Your task to perform on an android device: What's the weather going to be tomorrow? Image 0: 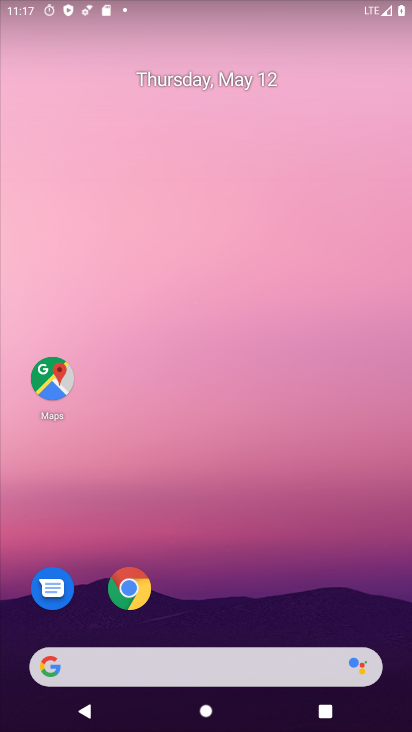
Step 0: click (140, 586)
Your task to perform on an android device: What's the weather going to be tomorrow? Image 1: 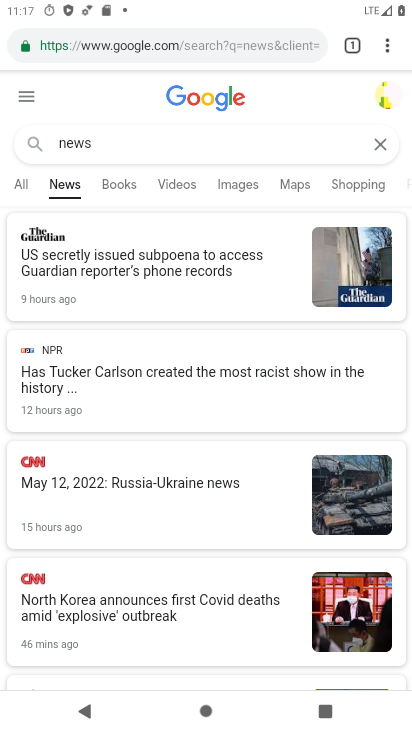
Step 1: click (144, 135)
Your task to perform on an android device: What's the weather going to be tomorrow? Image 2: 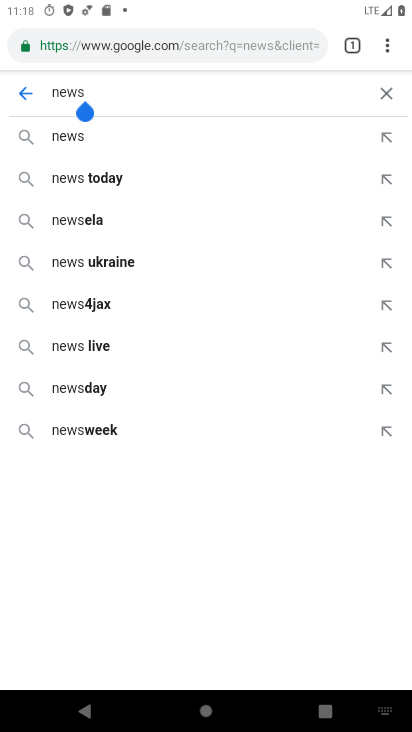
Step 2: click (385, 96)
Your task to perform on an android device: What's the weather going to be tomorrow? Image 3: 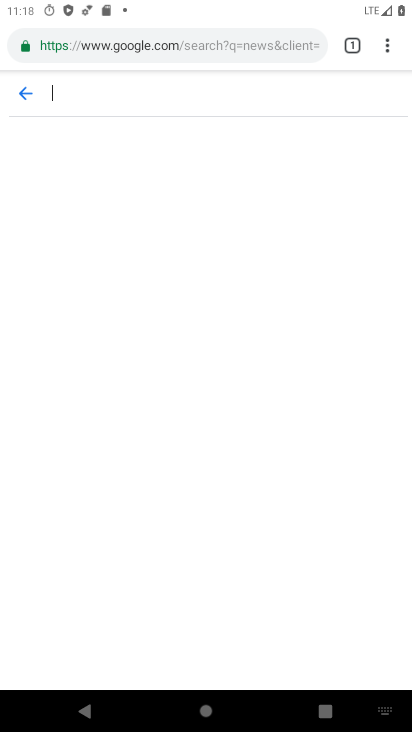
Step 3: type "weather"
Your task to perform on an android device: What's the weather going to be tomorrow? Image 4: 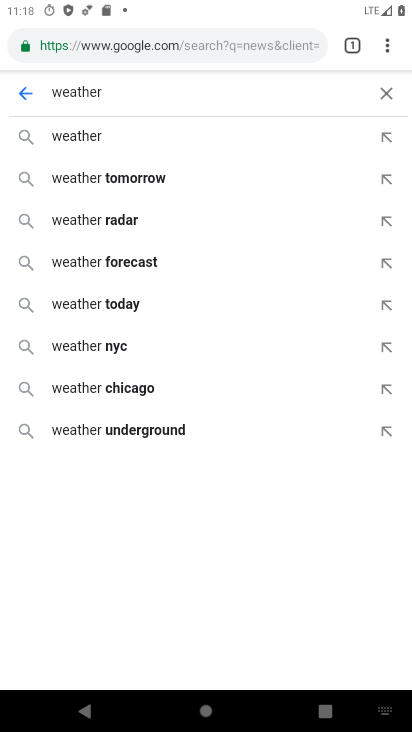
Step 4: click (87, 135)
Your task to perform on an android device: What's the weather going to be tomorrow? Image 5: 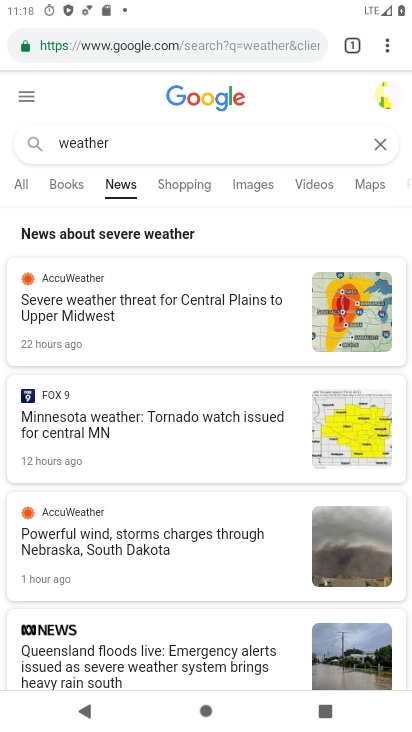
Step 5: click (25, 178)
Your task to perform on an android device: What's the weather going to be tomorrow? Image 6: 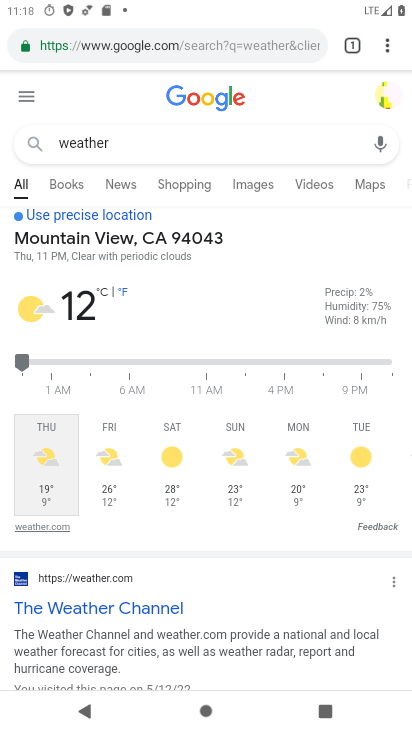
Step 6: click (105, 448)
Your task to perform on an android device: What's the weather going to be tomorrow? Image 7: 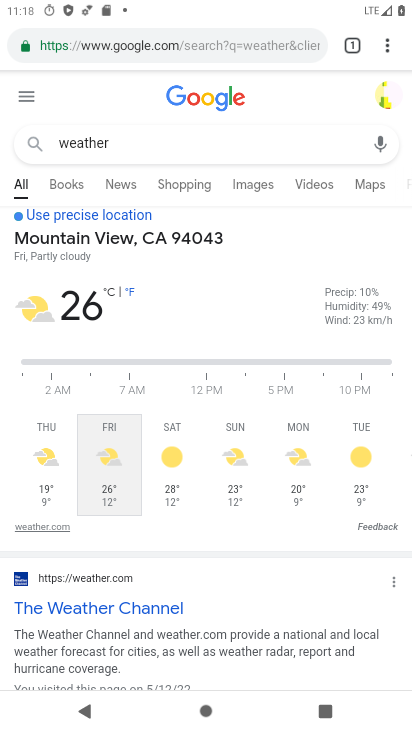
Step 7: task complete